Your task to perform on an android device: open chrome and create a bookmark for the current page Image 0: 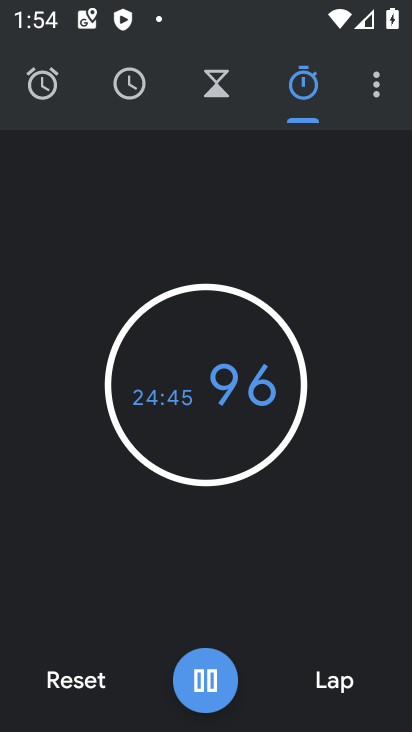
Step 0: press home button
Your task to perform on an android device: open chrome and create a bookmark for the current page Image 1: 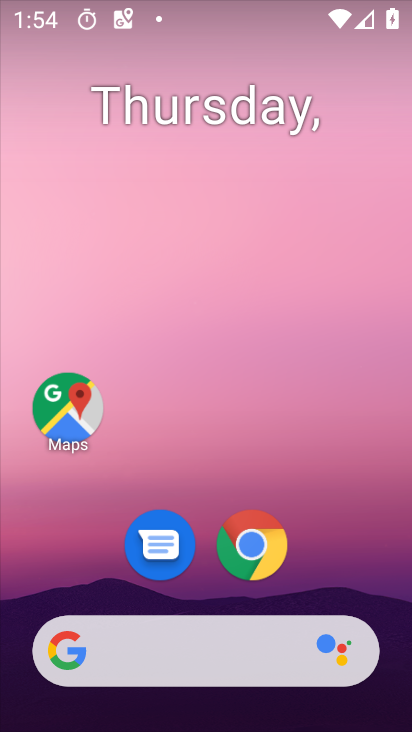
Step 1: click (277, 567)
Your task to perform on an android device: open chrome and create a bookmark for the current page Image 2: 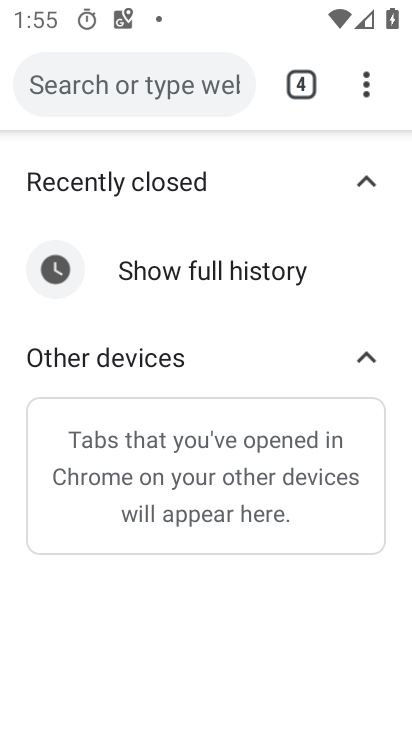
Step 2: click (364, 87)
Your task to perform on an android device: open chrome and create a bookmark for the current page Image 3: 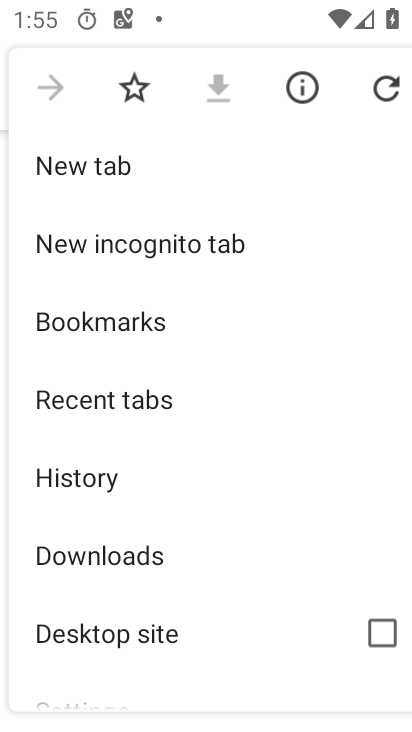
Step 3: click (131, 87)
Your task to perform on an android device: open chrome and create a bookmark for the current page Image 4: 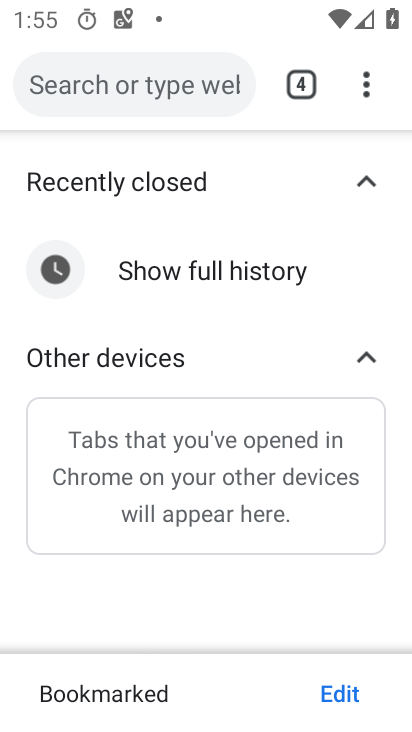
Step 4: task complete